Your task to perform on an android device: turn on showing notifications on the lock screen Image 0: 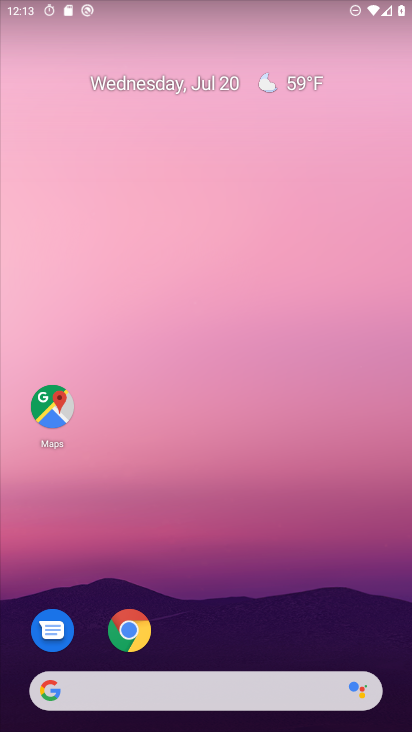
Step 0: drag from (297, 520) to (371, 8)
Your task to perform on an android device: turn on showing notifications on the lock screen Image 1: 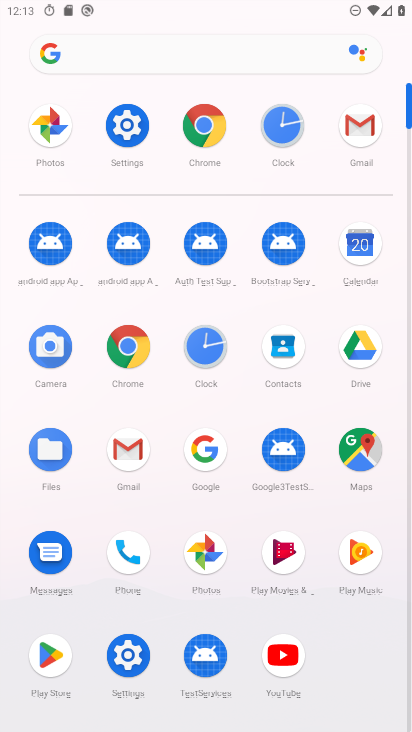
Step 1: click (126, 125)
Your task to perform on an android device: turn on showing notifications on the lock screen Image 2: 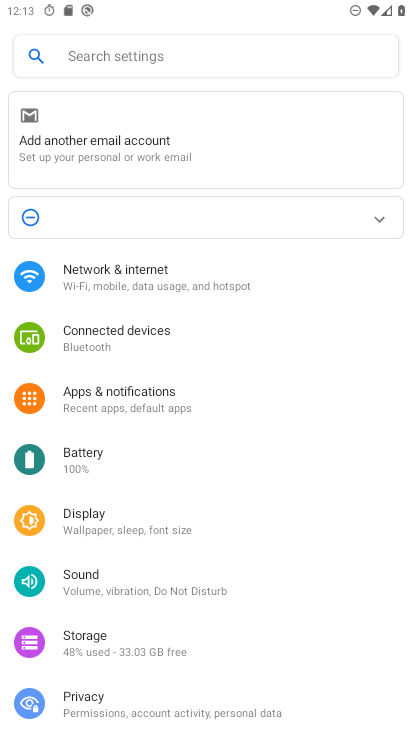
Step 2: click (136, 400)
Your task to perform on an android device: turn on showing notifications on the lock screen Image 3: 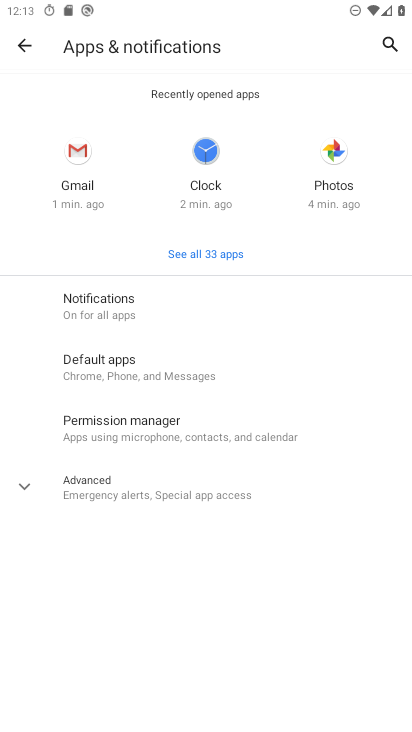
Step 3: click (144, 305)
Your task to perform on an android device: turn on showing notifications on the lock screen Image 4: 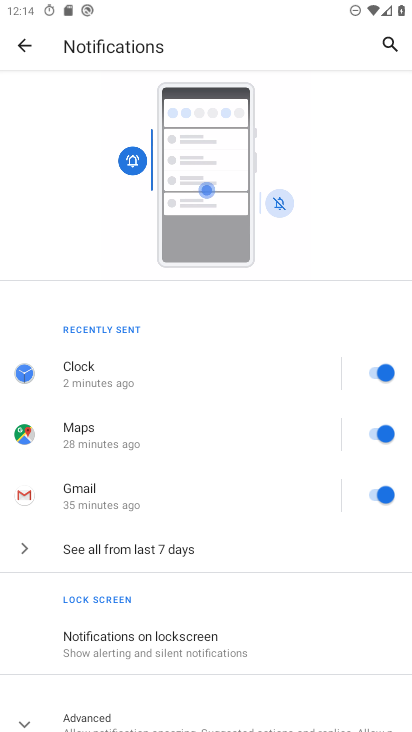
Step 4: click (117, 649)
Your task to perform on an android device: turn on showing notifications on the lock screen Image 5: 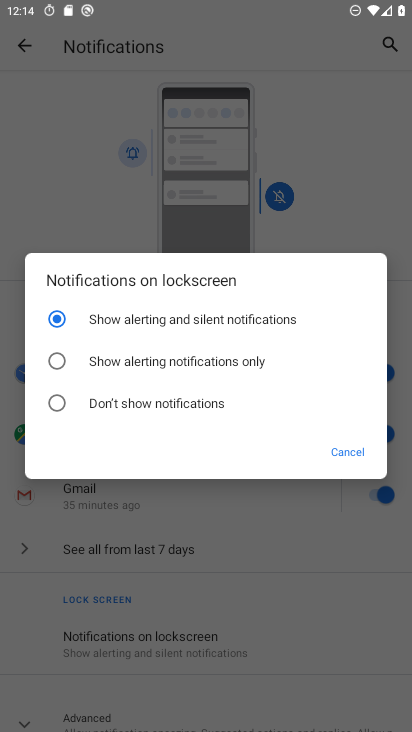
Step 5: task complete